Your task to perform on an android device: change the clock display to analog Image 0: 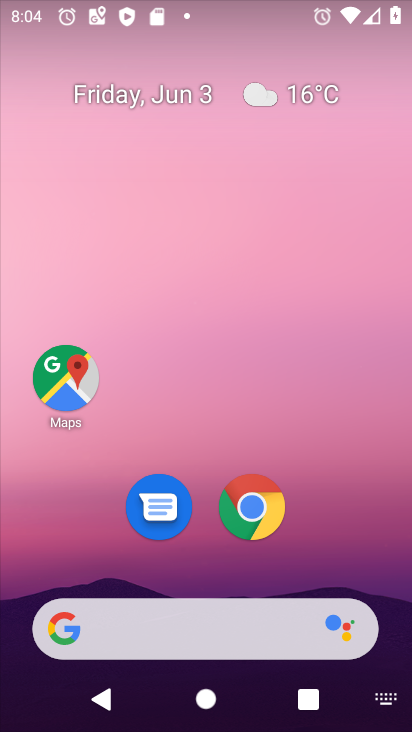
Step 0: drag from (351, 545) to (214, 13)
Your task to perform on an android device: change the clock display to analog Image 1: 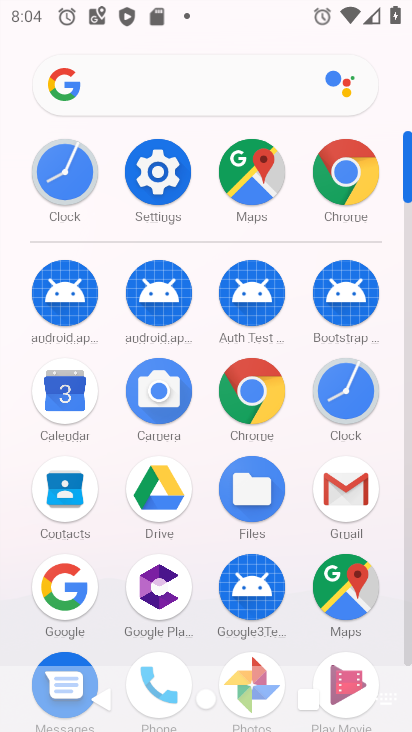
Step 1: click (346, 390)
Your task to perform on an android device: change the clock display to analog Image 2: 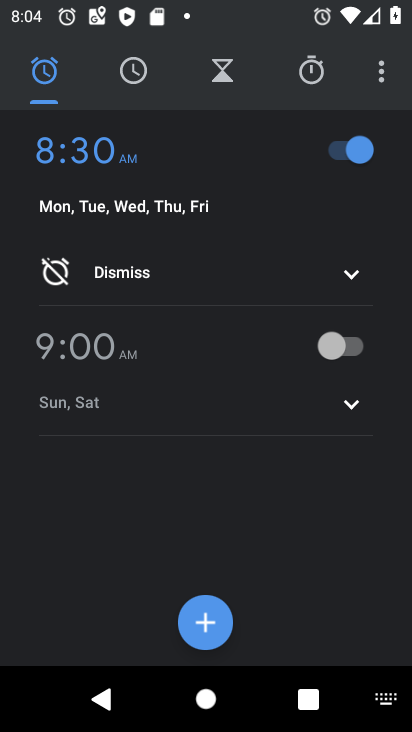
Step 2: click (368, 63)
Your task to perform on an android device: change the clock display to analog Image 3: 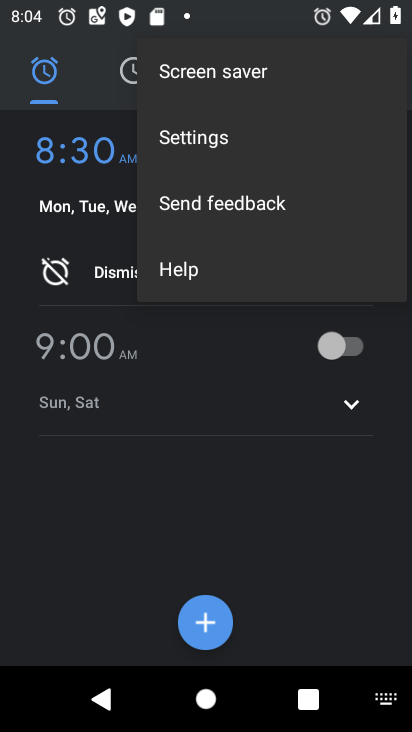
Step 3: click (223, 169)
Your task to perform on an android device: change the clock display to analog Image 4: 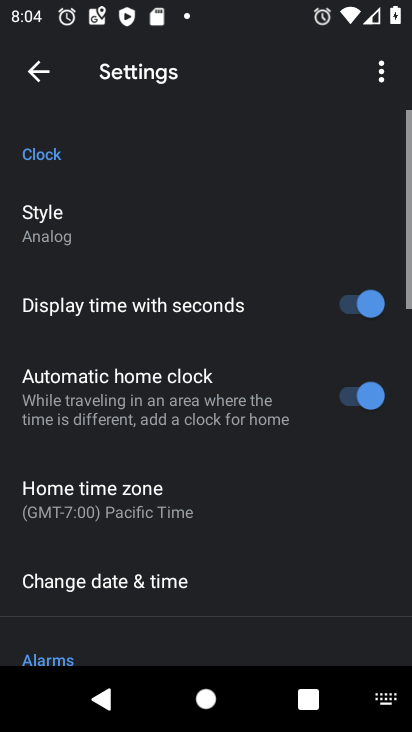
Step 4: click (176, 226)
Your task to perform on an android device: change the clock display to analog Image 5: 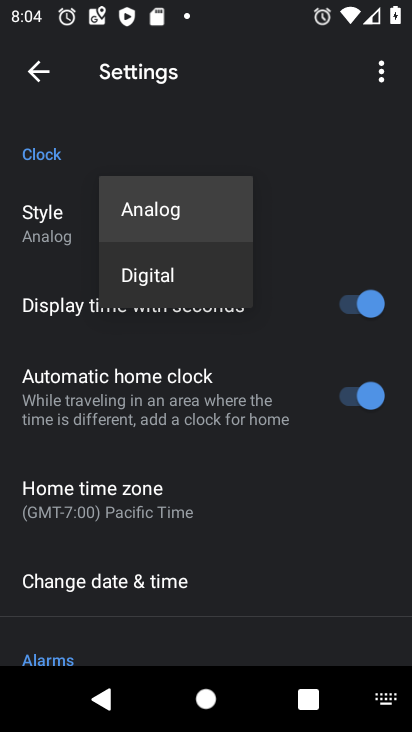
Step 5: click (210, 282)
Your task to perform on an android device: change the clock display to analog Image 6: 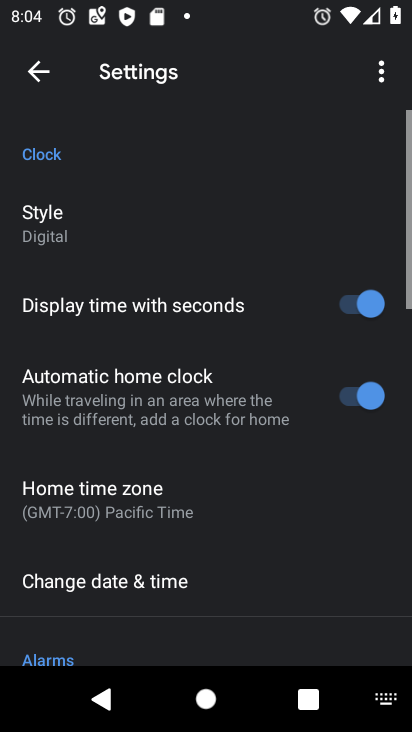
Step 6: click (105, 218)
Your task to perform on an android device: change the clock display to analog Image 7: 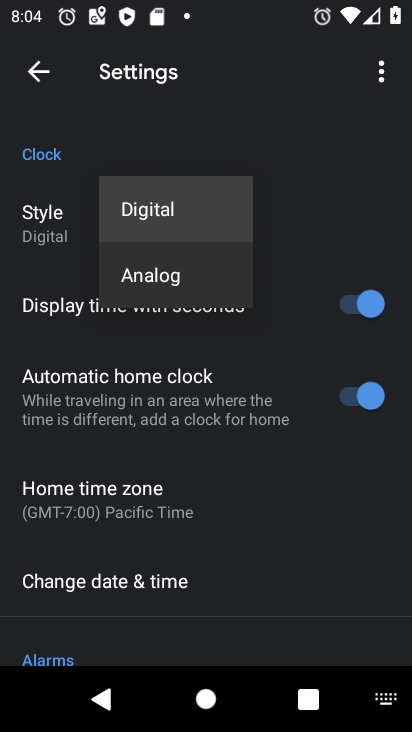
Step 7: click (184, 261)
Your task to perform on an android device: change the clock display to analog Image 8: 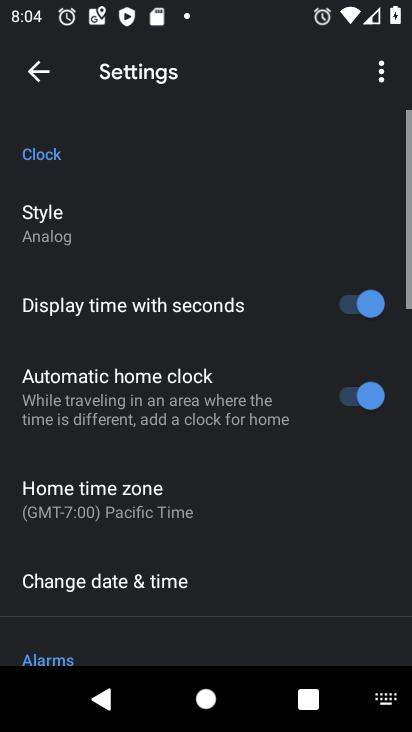
Step 8: task complete